Your task to perform on an android device: choose inbox layout in the gmail app Image 0: 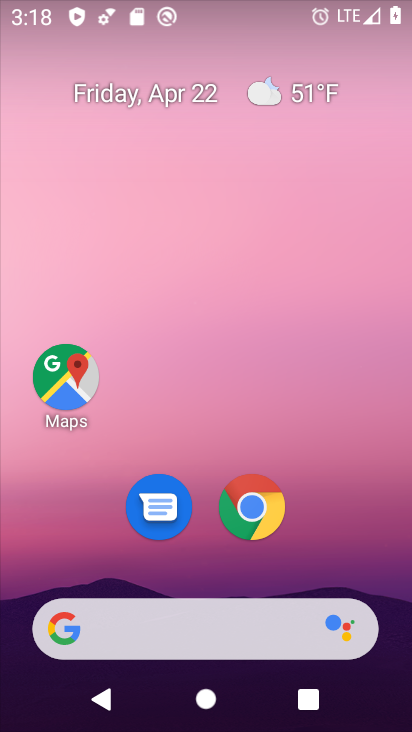
Step 0: drag from (197, 592) to (179, 4)
Your task to perform on an android device: choose inbox layout in the gmail app Image 1: 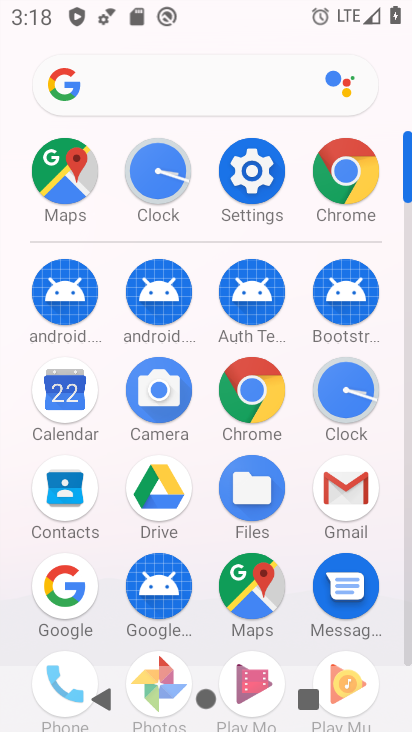
Step 1: click (360, 508)
Your task to perform on an android device: choose inbox layout in the gmail app Image 2: 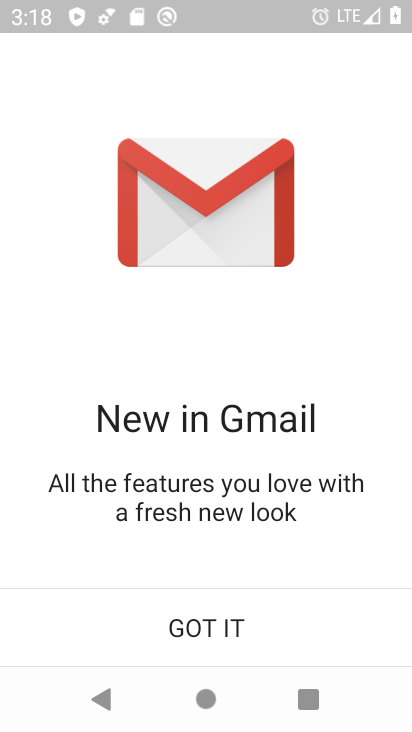
Step 2: click (227, 626)
Your task to perform on an android device: choose inbox layout in the gmail app Image 3: 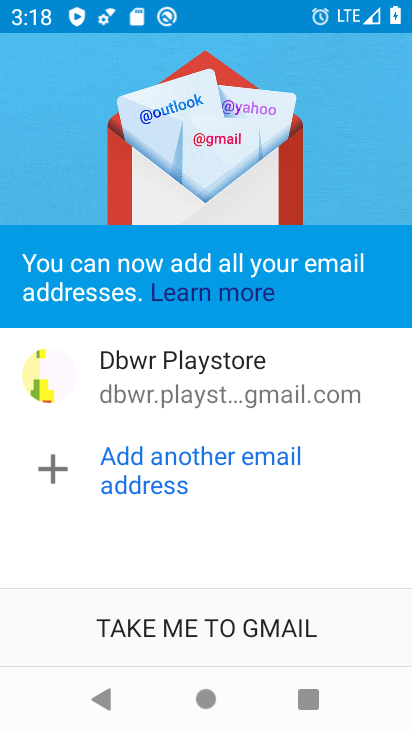
Step 3: click (294, 634)
Your task to perform on an android device: choose inbox layout in the gmail app Image 4: 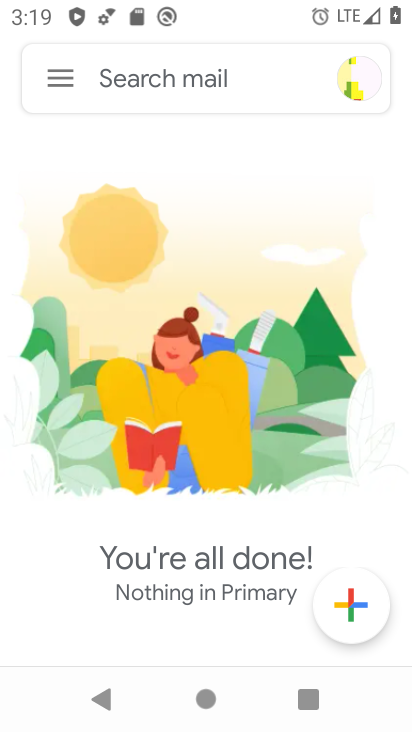
Step 4: click (46, 75)
Your task to perform on an android device: choose inbox layout in the gmail app Image 5: 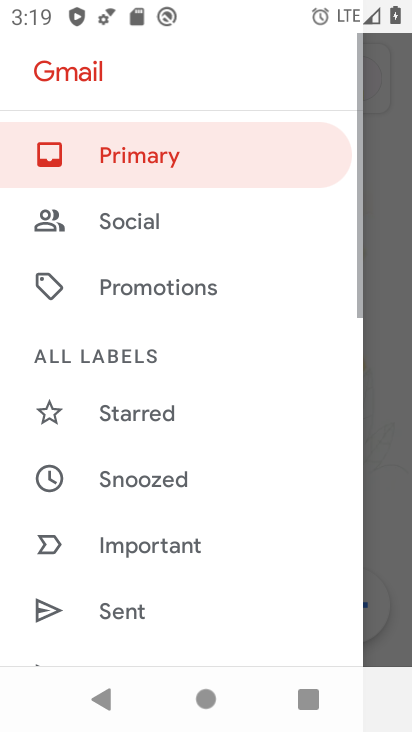
Step 5: drag from (162, 516) to (172, 35)
Your task to perform on an android device: choose inbox layout in the gmail app Image 6: 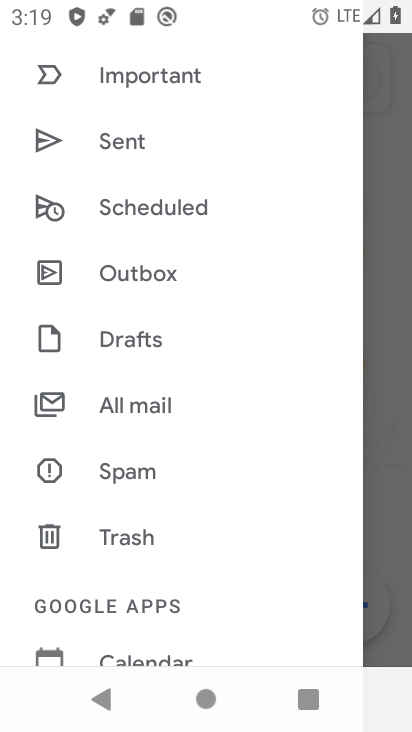
Step 6: drag from (149, 620) to (141, 133)
Your task to perform on an android device: choose inbox layout in the gmail app Image 7: 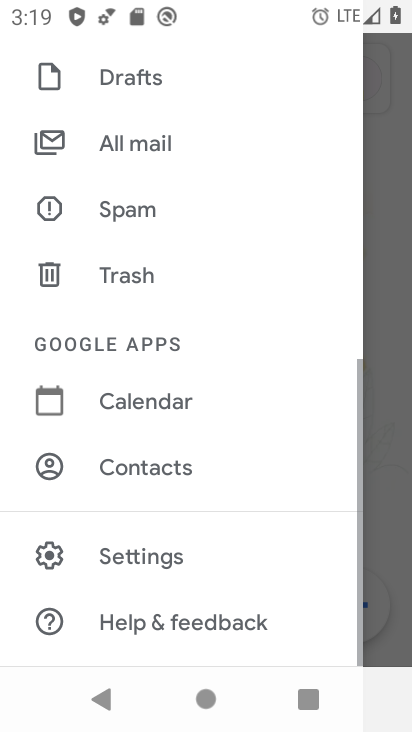
Step 7: drag from (185, 630) to (181, 134)
Your task to perform on an android device: choose inbox layout in the gmail app Image 8: 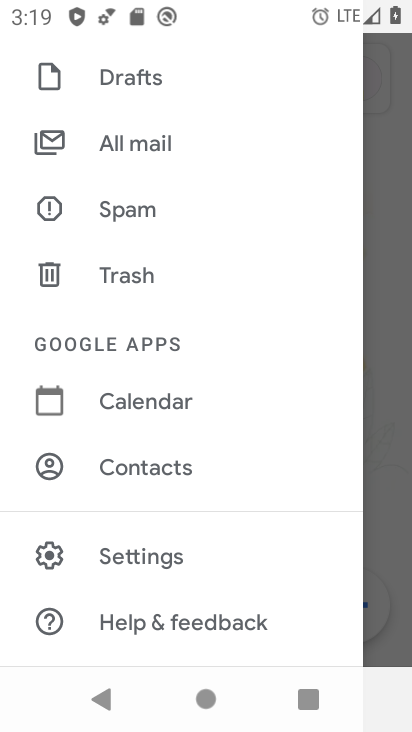
Step 8: click (146, 565)
Your task to perform on an android device: choose inbox layout in the gmail app Image 9: 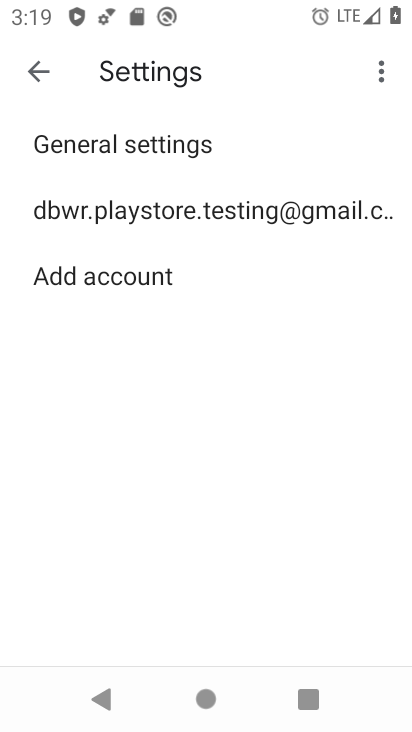
Step 9: click (118, 195)
Your task to perform on an android device: choose inbox layout in the gmail app Image 10: 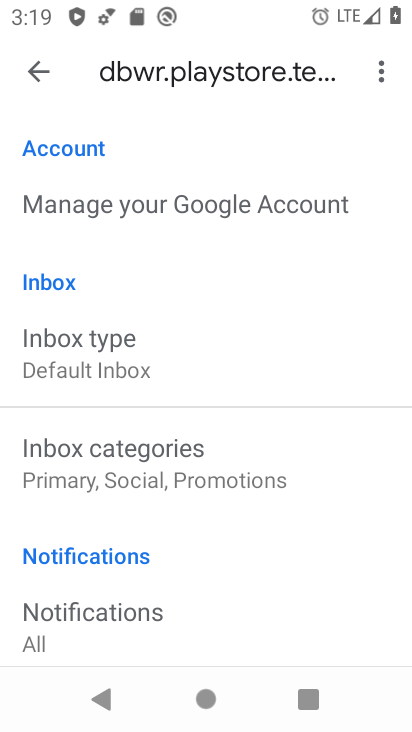
Step 10: click (163, 363)
Your task to perform on an android device: choose inbox layout in the gmail app Image 11: 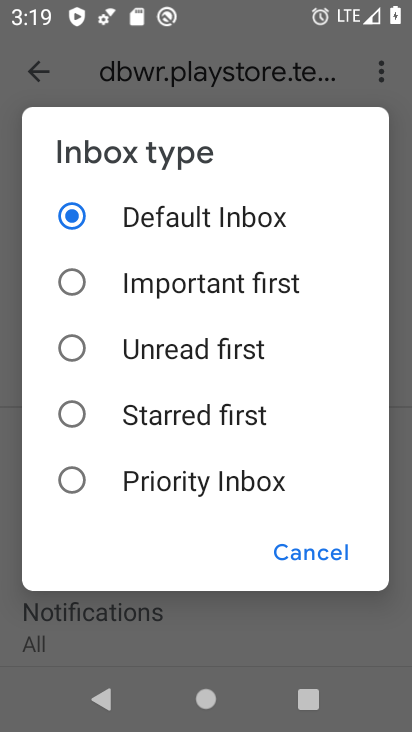
Step 11: click (167, 495)
Your task to perform on an android device: choose inbox layout in the gmail app Image 12: 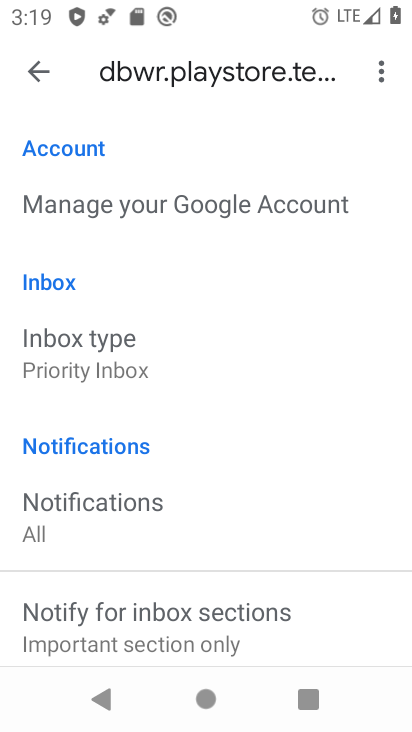
Step 12: task complete